Your task to perform on an android device: Empty the shopping cart on newegg.com. Search for panasonic triple a on newegg.com, select the first entry, and add it to the cart. Image 0: 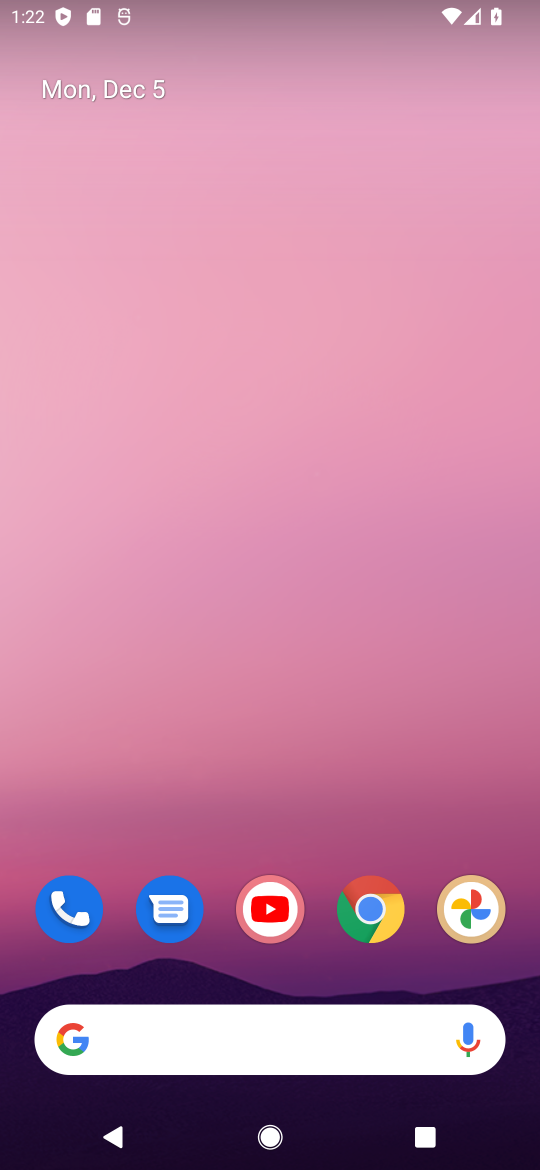
Step 0: drag from (309, 1020) to (296, 380)
Your task to perform on an android device: Empty the shopping cart on newegg.com. Search for panasonic triple a on newegg.com, select the first entry, and add it to the cart. Image 1: 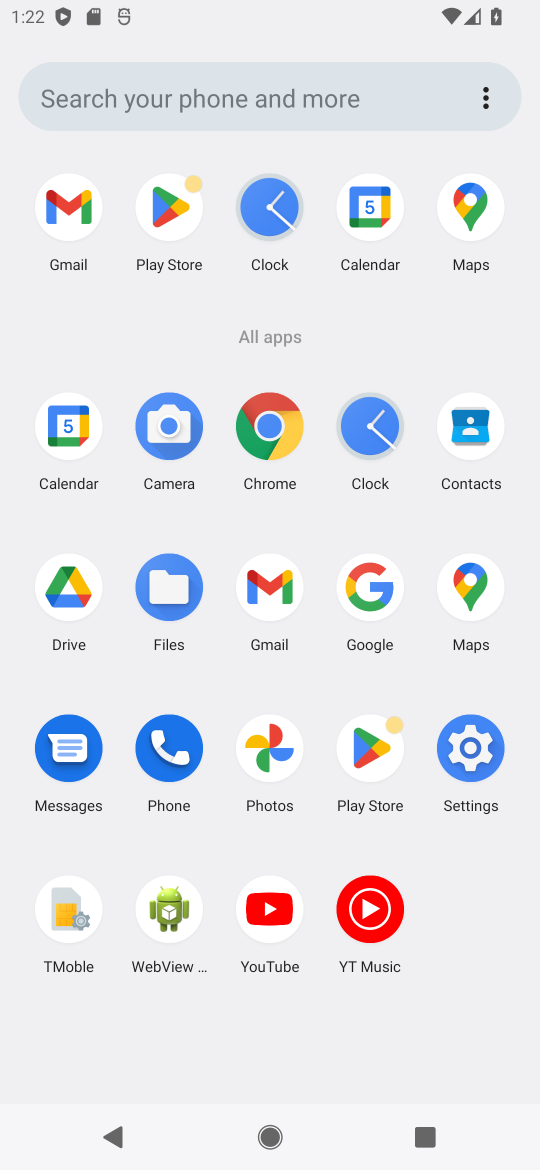
Step 1: click (372, 578)
Your task to perform on an android device: Empty the shopping cart on newegg.com. Search for panasonic triple a on newegg.com, select the first entry, and add it to the cart. Image 2: 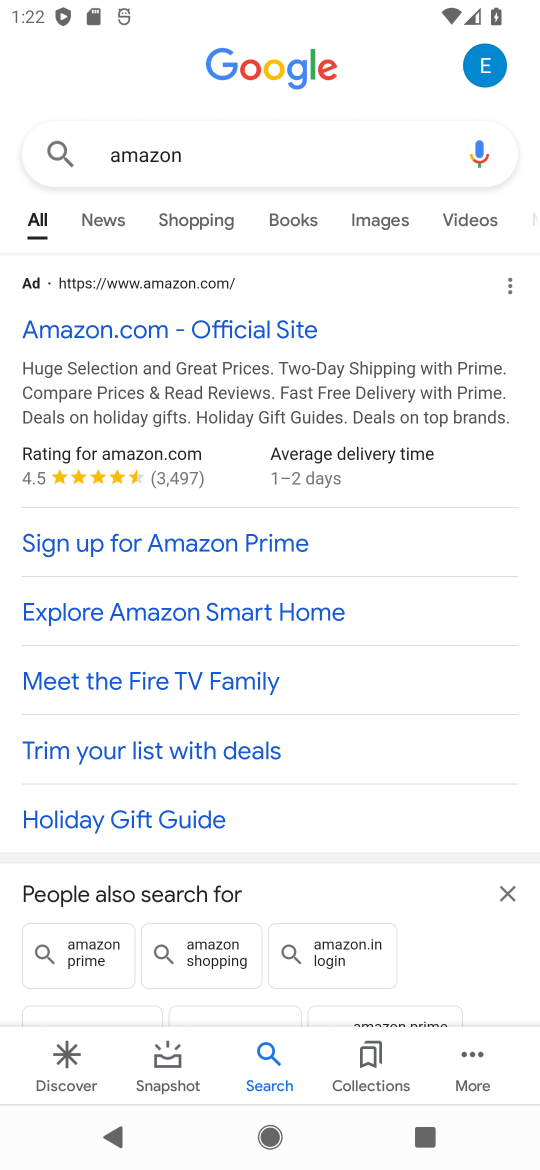
Step 2: click (222, 145)
Your task to perform on an android device: Empty the shopping cart on newegg.com. Search for panasonic triple a on newegg.com, select the first entry, and add it to the cart. Image 3: 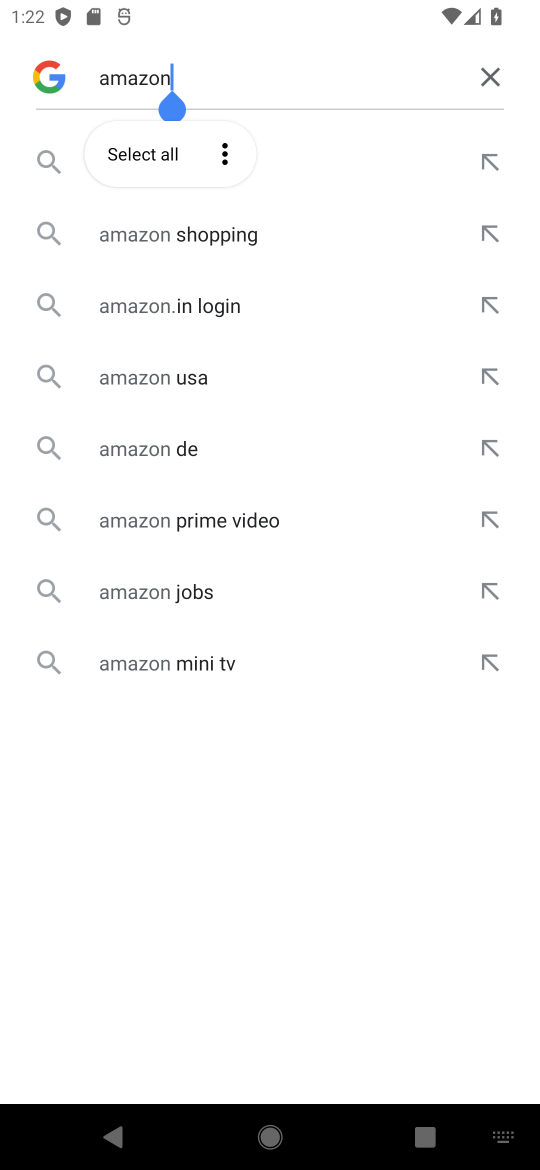
Step 3: click (480, 75)
Your task to perform on an android device: Empty the shopping cart on newegg.com. Search for panasonic triple a on newegg.com, select the first entry, and add it to the cart. Image 4: 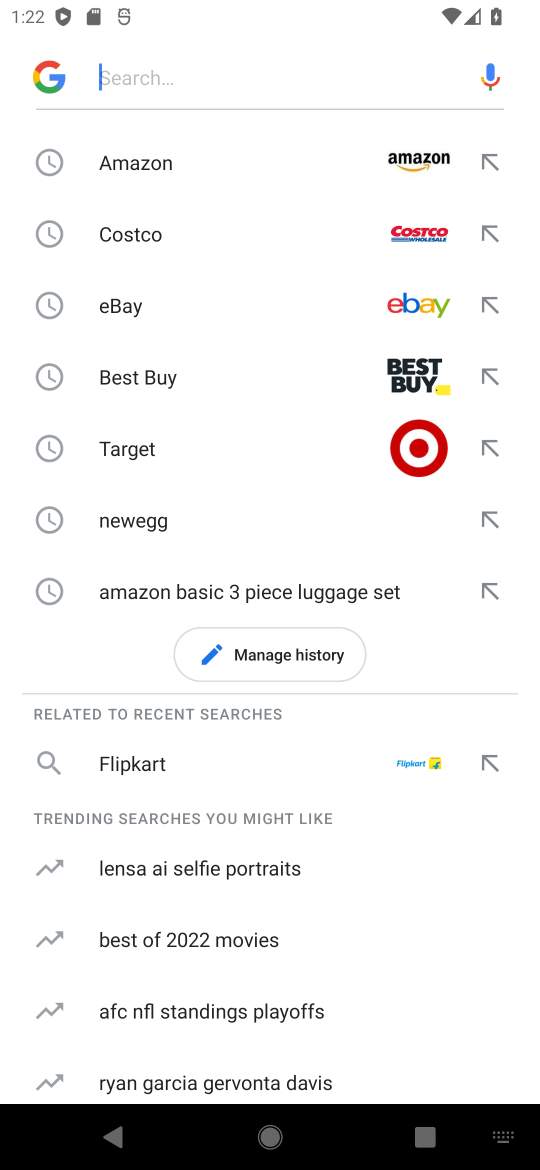
Step 4: click (484, 535)
Your task to perform on an android device: Empty the shopping cart on newegg.com. Search for panasonic triple a on newegg.com, select the first entry, and add it to the cart. Image 5: 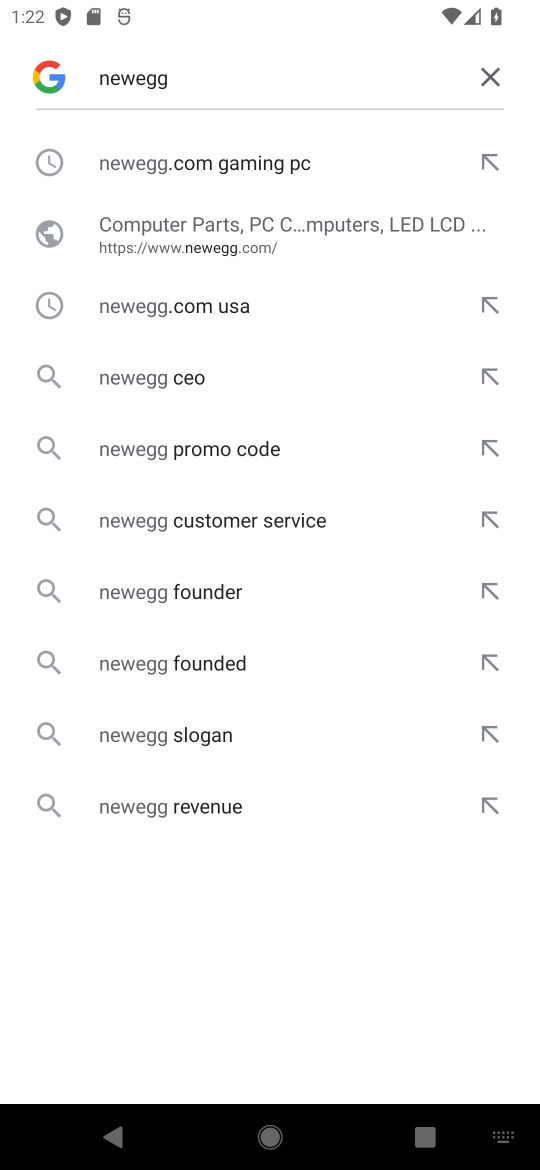
Step 5: click (168, 236)
Your task to perform on an android device: Empty the shopping cart on newegg.com. Search for panasonic triple a on newegg.com, select the first entry, and add it to the cart. Image 6: 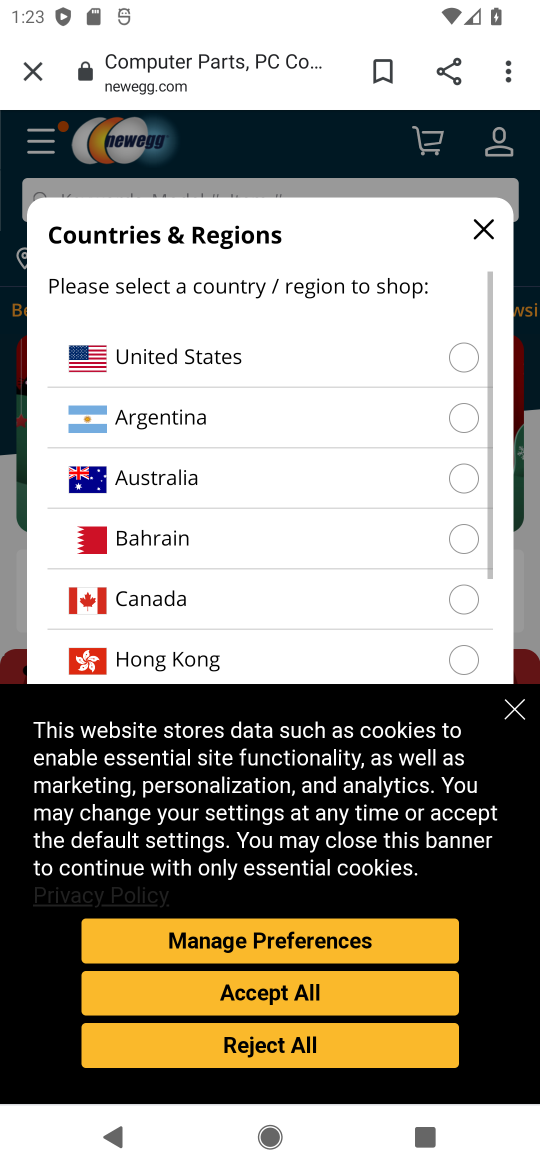
Step 6: click (492, 230)
Your task to perform on an android device: Empty the shopping cart on newegg.com. Search for panasonic triple a on newegg.com, select the first entry, and add it to the cart. Image 7: 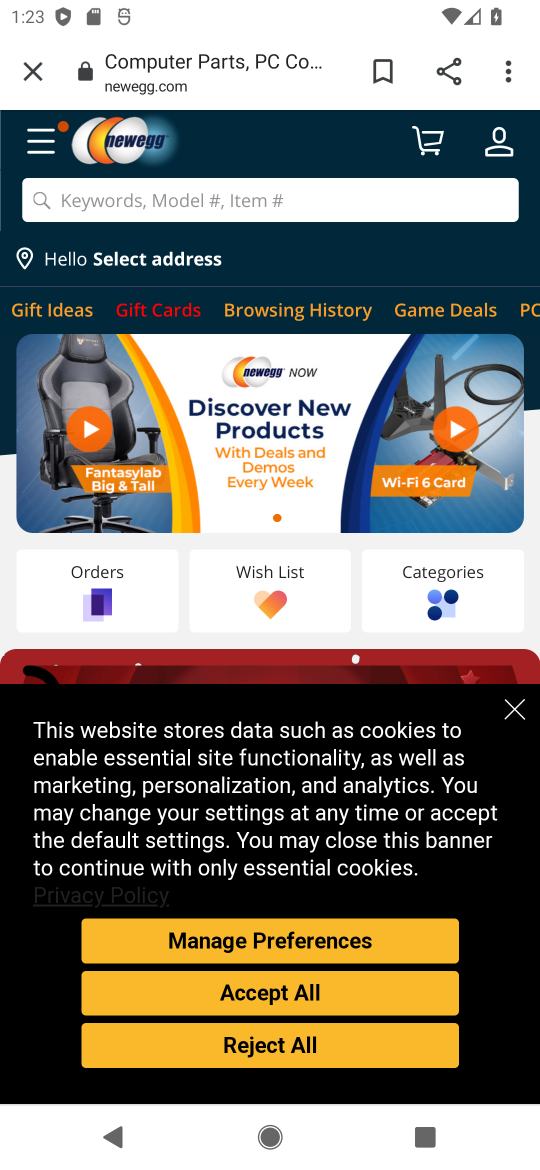
Step 7: click (149, 198)
Your task to perform on an android device: Empty the shopping cart on newegg.com. Search for panasonic triple a on newegg.com, select the first entry, and add it to the cart. Image 8: 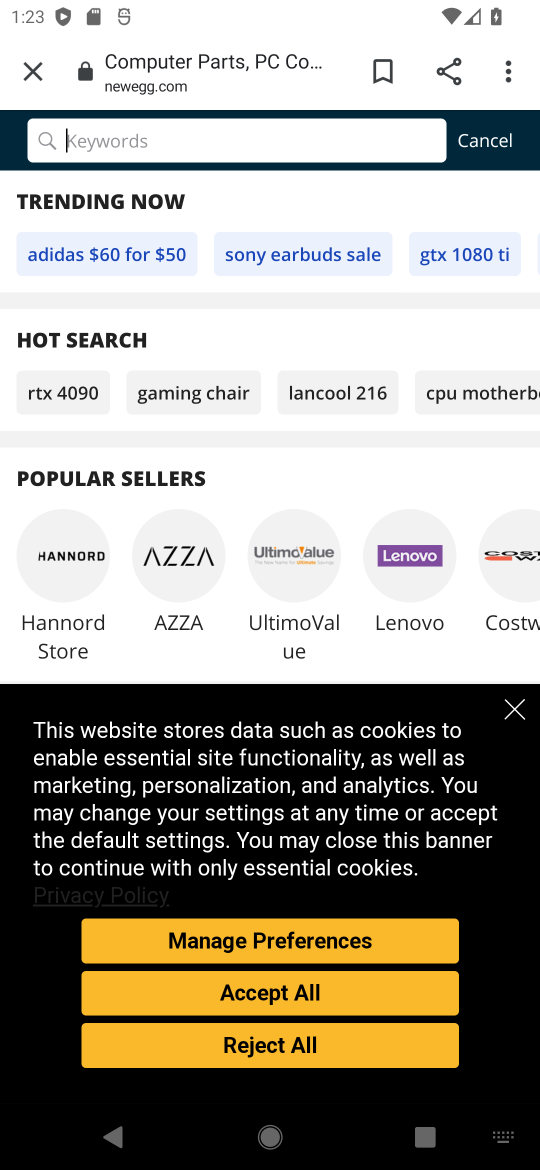
Step 8: type "panasonic triple a"
Your task to perform on an android device: Empty the shopping cart on newegg.com. Search for panasonic triple a on newegg.com, select the first entry, and add it to the cart. Image 9: 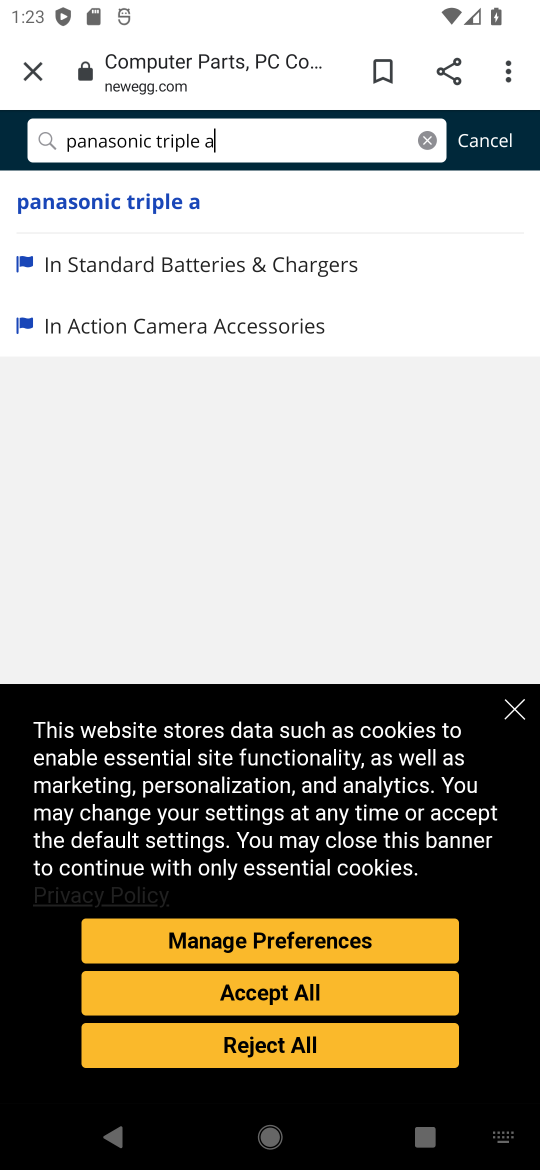
Step 9: click (129, 211)
Your task to perform on an android device: Empty the shopping cart on newegg.com. Search for panasonic triple a on newegg.com, select the first entry, and add it to the cart. Image 10: 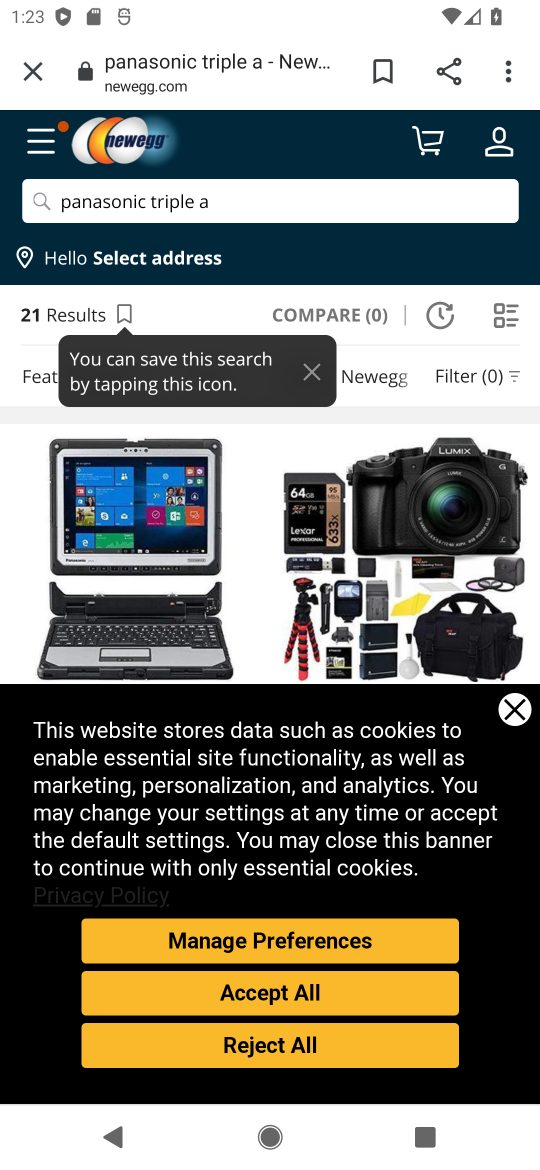
Step 10: click (295, 204)
Your task to perform on an android device: Empty the shopping cart on newegg.com. Search for panasonic triple a on newegg.com, select the first entry, and add it to the cart. Image 11: 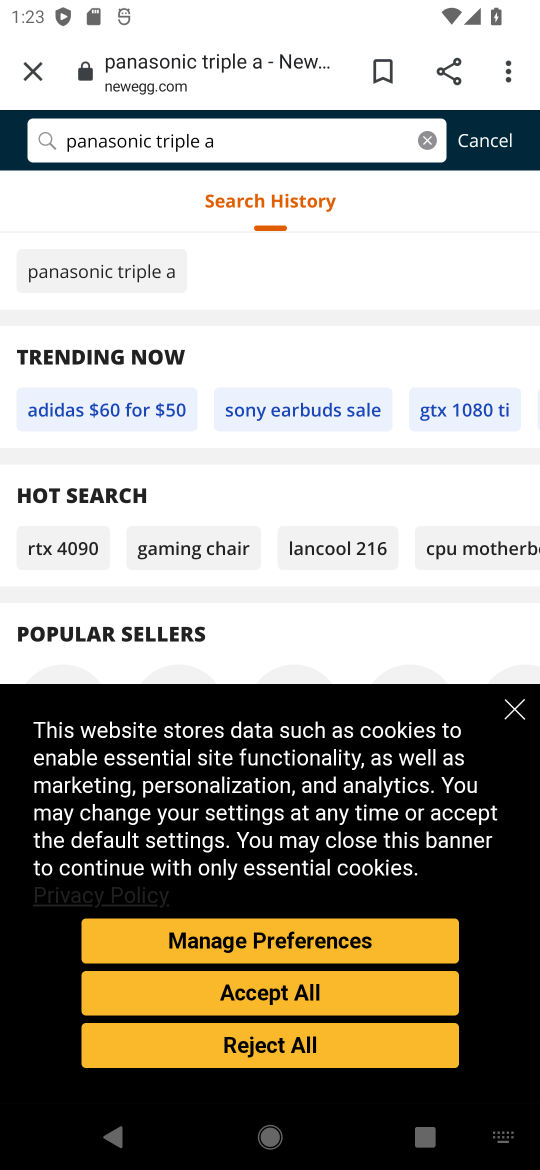
Step 11: click (515, 698)
Your task to perform on an android device: Empty the shopping cart on newegg.com. Search for panasonic triple a on newegg.com, select the first entry, and add it to the cart. Image 12: 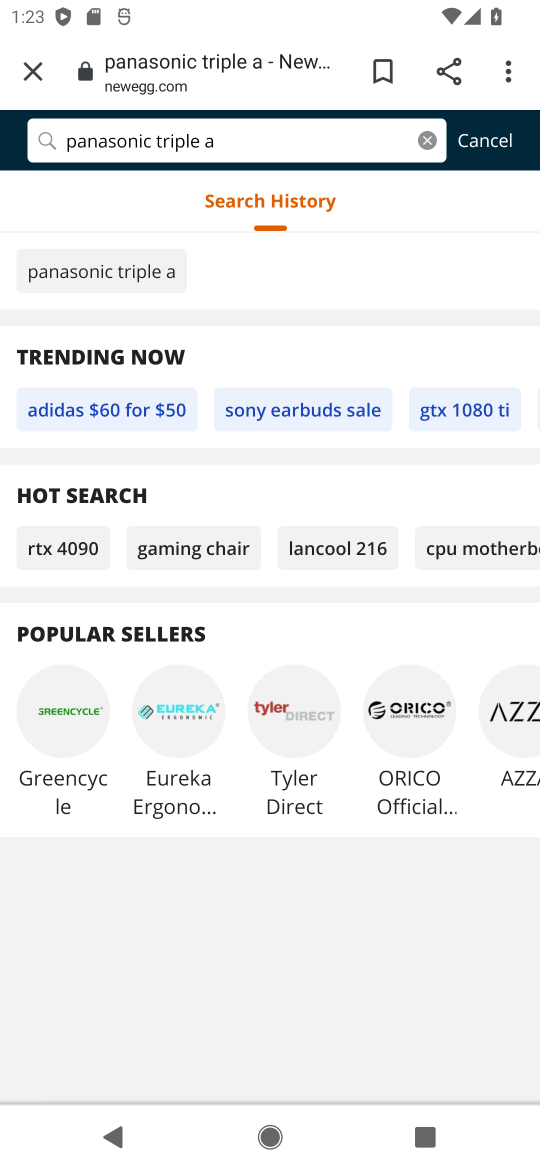
Step 12: click (223, 146)
Your task to perform on an android device: Empty the shopping cart on newegg.com. Search for panasonic triple a on newegg.com, select the first entry, and add it to the cart. Image 13: 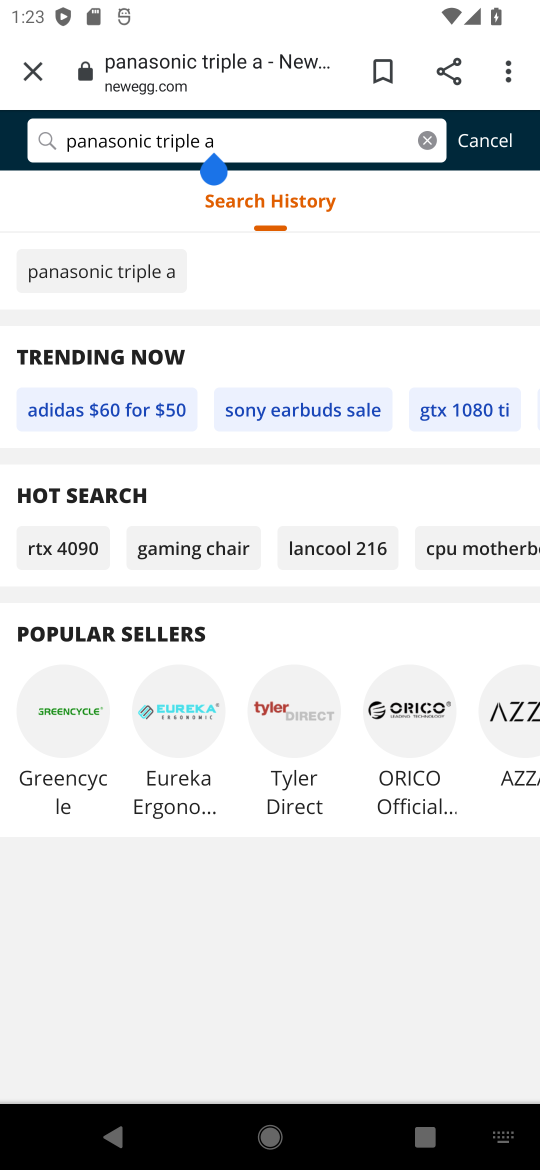
Step 13: click (155, 136)
Your task to perform on an android device: Empty the shopping cart on newegg.com. Search for panasonic triple a on newegg.com, select the first entry, and add it to the cart. Image 14: 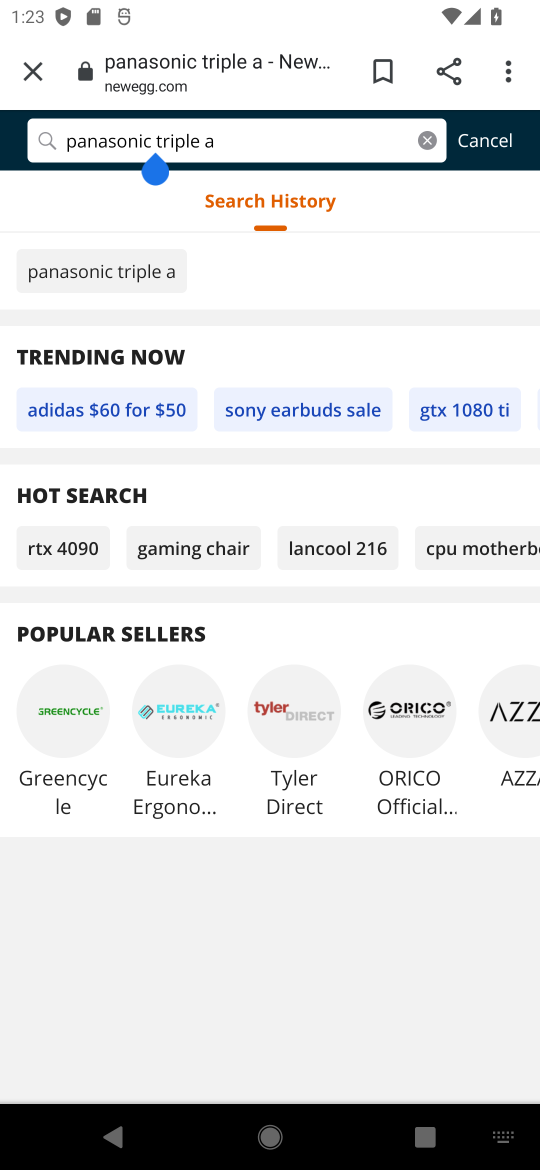
Step 14: click (86, 278)
Your task to perform on an android device: Empty the shopping cart on newegg.com. Search for panasonic triple a on newegg.com, select the first entry, and add it to the cart. Image 15: 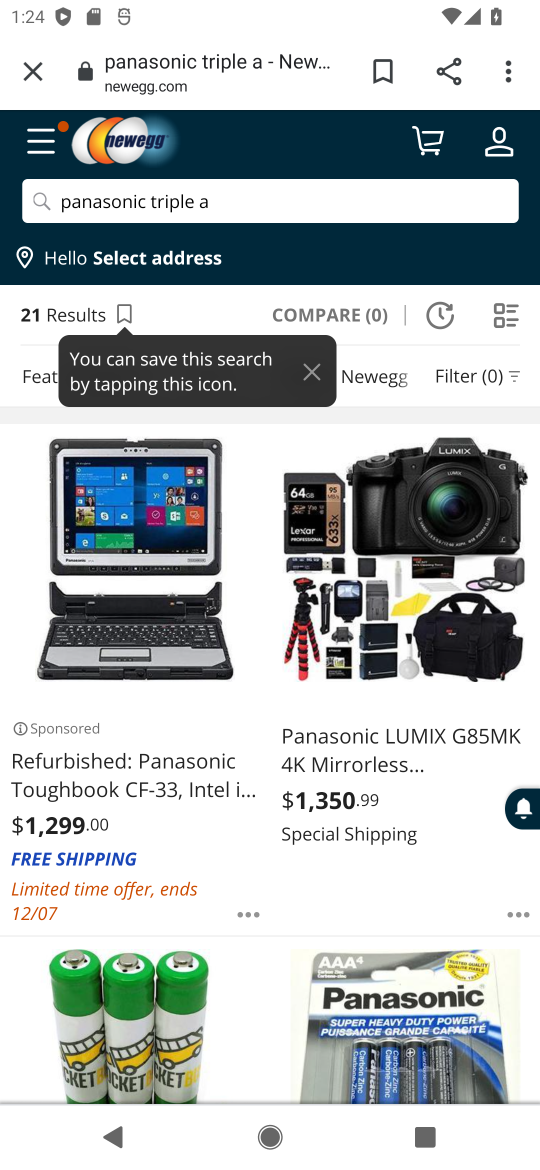
Step 15: click (127, 764)
Your task to perform on an android device: Empty the shopping cart on newegg.com. Search for panasonic triple a on newegg.com, select the first entry, and add it to the cart. Image 16: 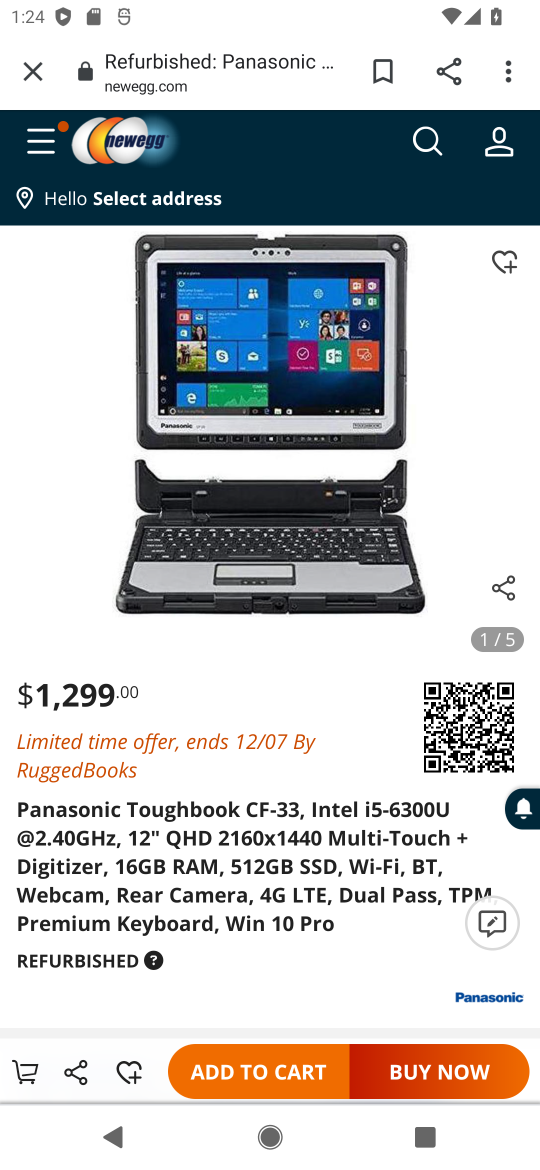
Step 16: click (280, 1064)
Your task to perform on an android device: Empty the shopping cart on newegg.com. Search for panasonic triple a on newegg.com, select the first entry, and add it to the cart. Image 17: 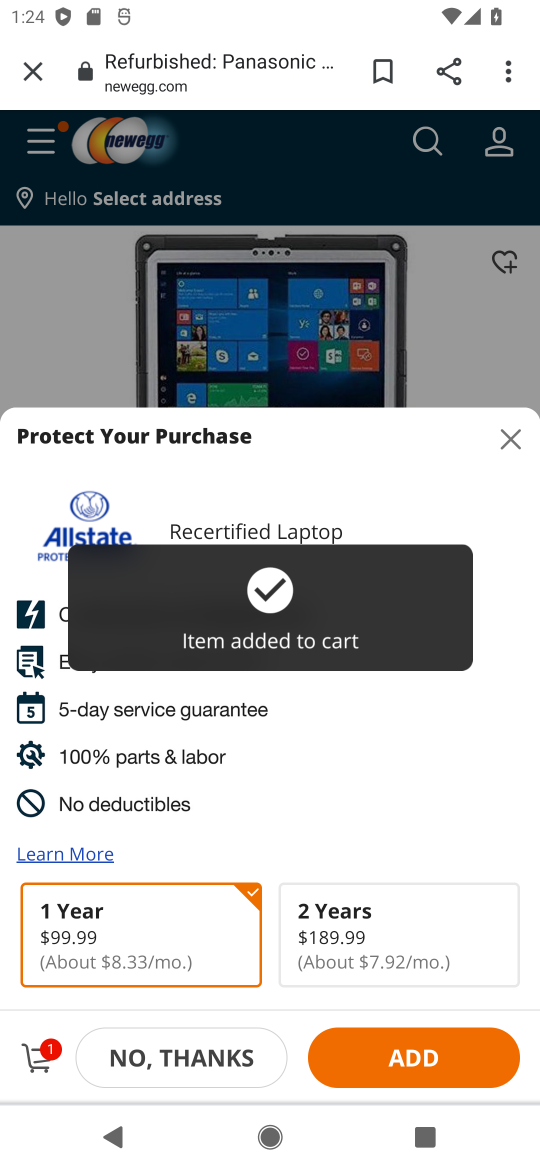
Step 17: click (37, 1077)
Your task to perform on an android device: Empty the shopping cart on newegg.com. Search for panasonic triple a on newegg.com, select the first entry, and add it to the cart. Image 18: 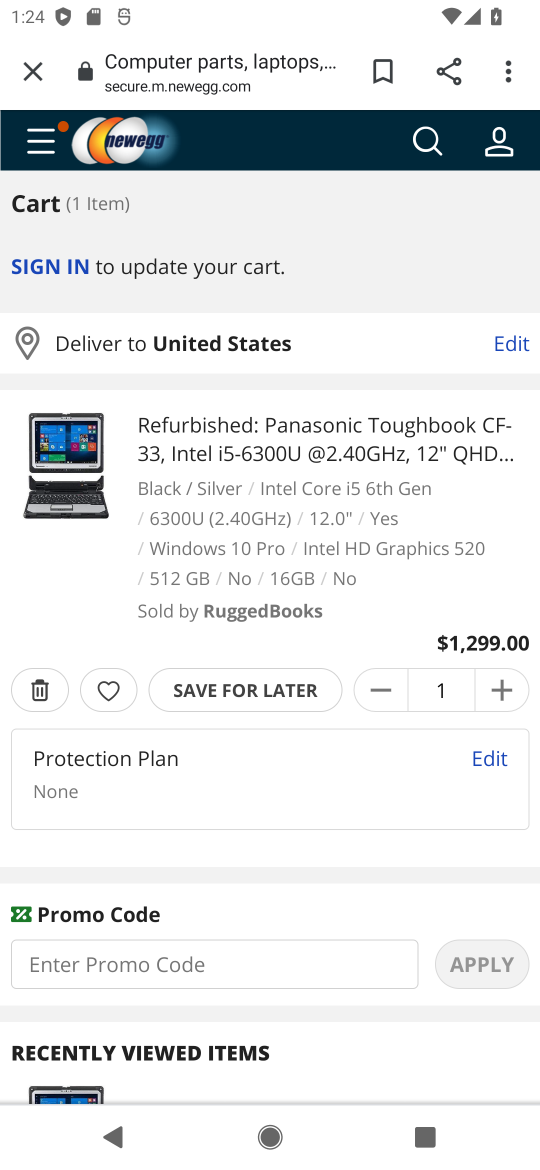
Step 18: click (225, 1011)
Your task to perform on an android device: Empty the shopping cart on newegg.com. Search for panasonic triple a on newegg.com, select the first entry, and add it to the cart. Image 19: 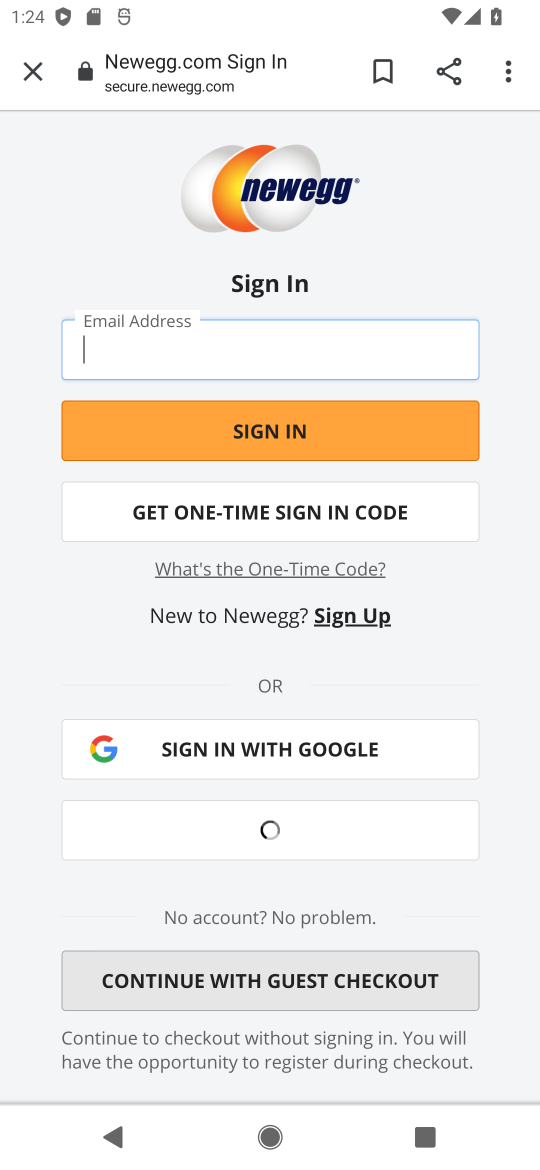
Step 19: task complete